Your task to perform on an android device: turn pop-ups on in chrome Image 0: 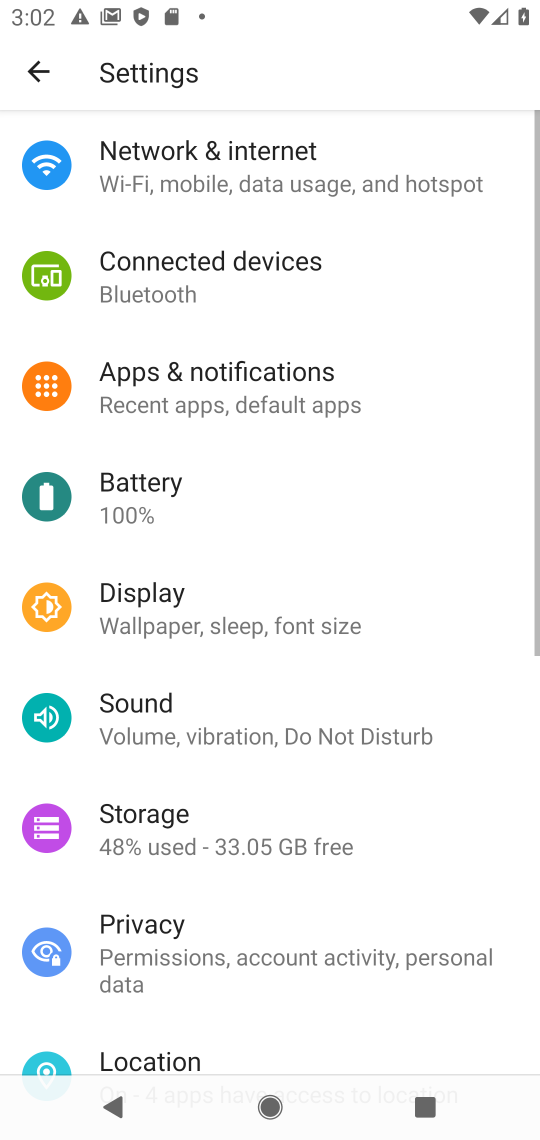
Step 0: press back button
Your task to perform on an android device: turn pop-ups on in chrome Image 1: 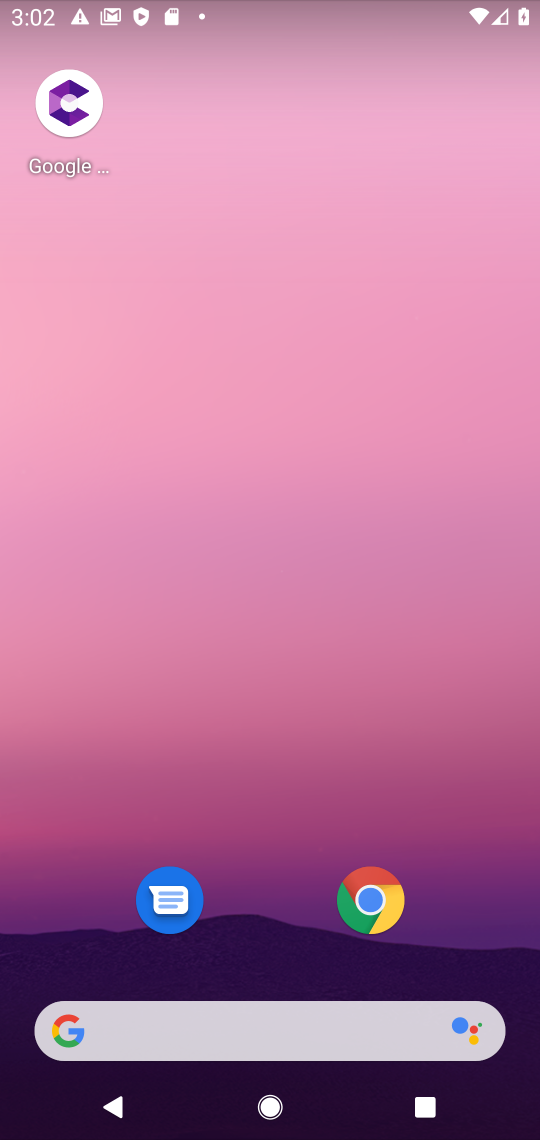
Step 1: click (368, 904)
Your task to perform on an android device: turn pop-ups on in chrome Image 2: 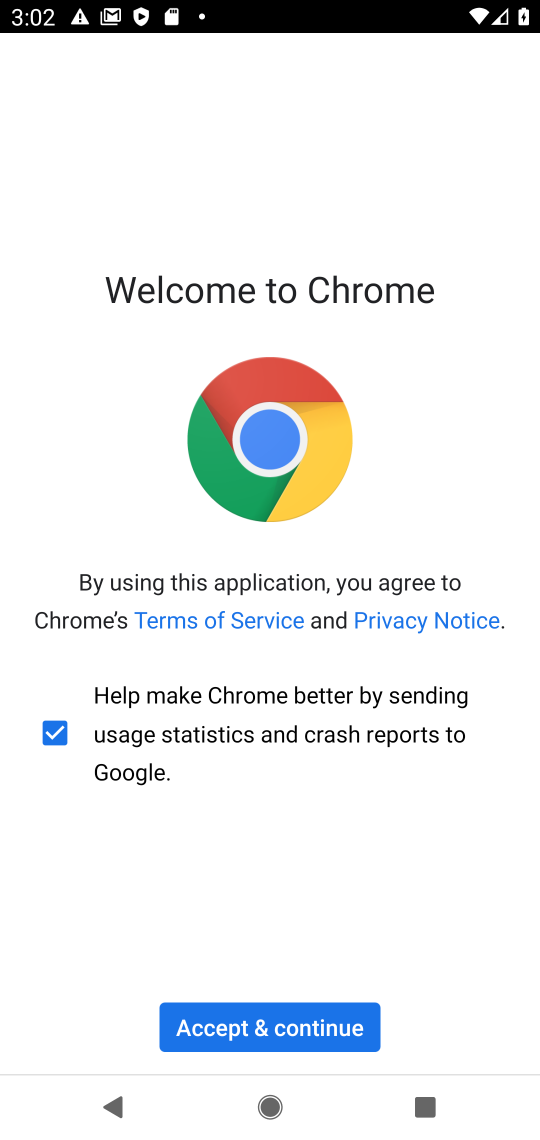
Step 2: click (306, 1010)
Your task to perform on an android device: turn pop-ups on in chrome Image 3: 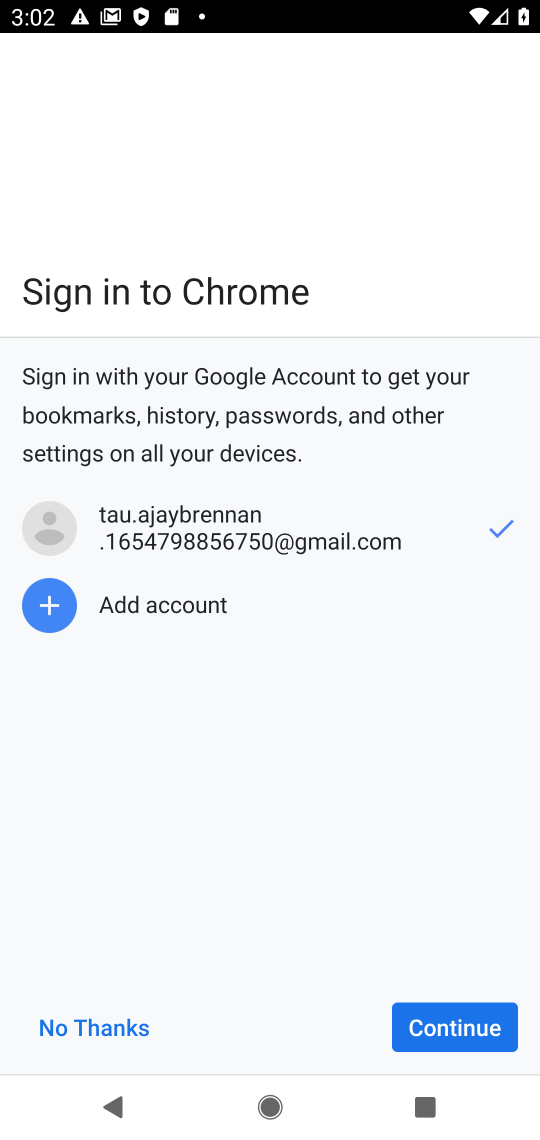
Step 3: click (482, 1032)
Your task to perform on an android device: turn pop-ups on in chrome Image 4: 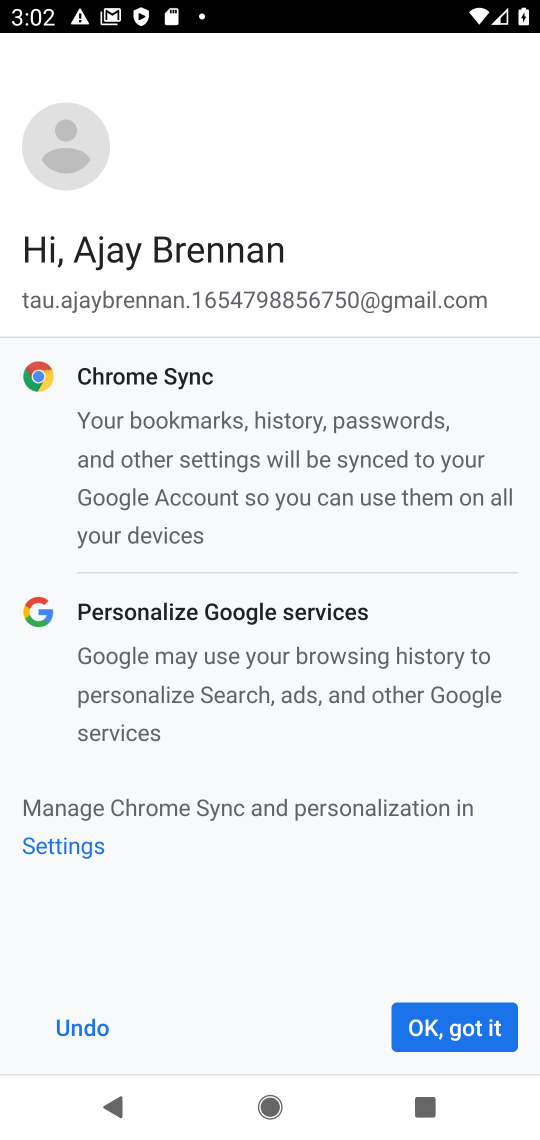
Step 4: click (445, 1031)
Your task to perform on an android device: turn pop-ups on in chrome Image 5: 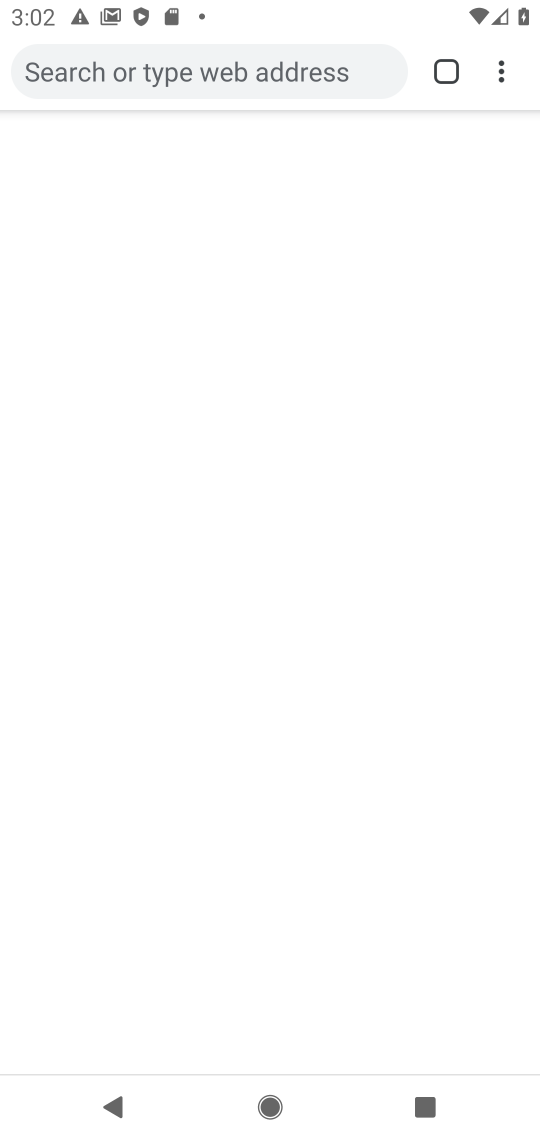
Step 5: drag from (506, 60) to (293, 605)
Your task to perform on an android device: turn pop-ups on in chrome Image 6: 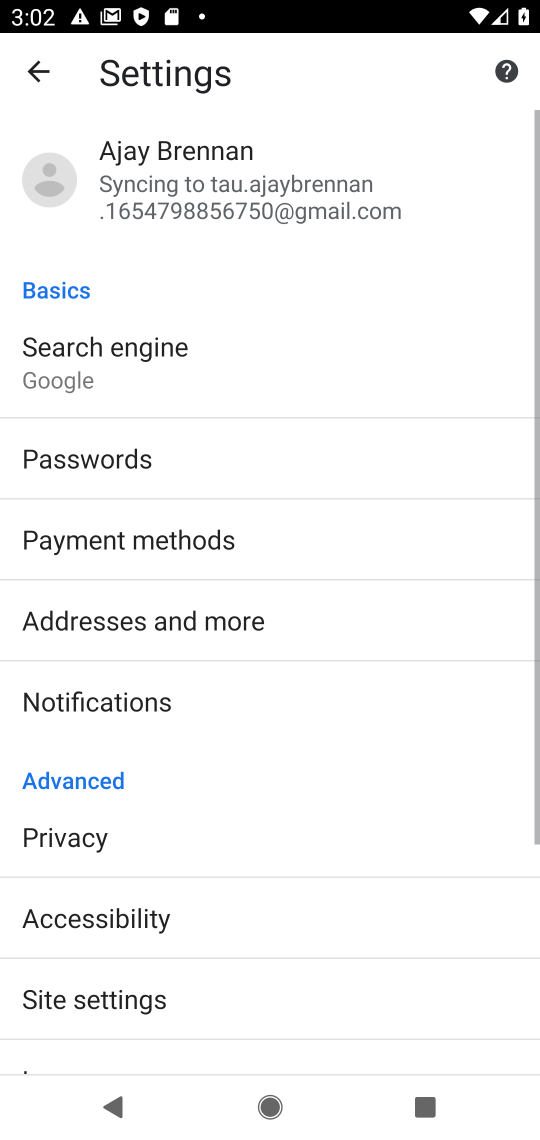
Step 6: drag from (218, 956) to (363, 287)
Your task to perform on an android device: turn pop-ups on in chrome Image 7: 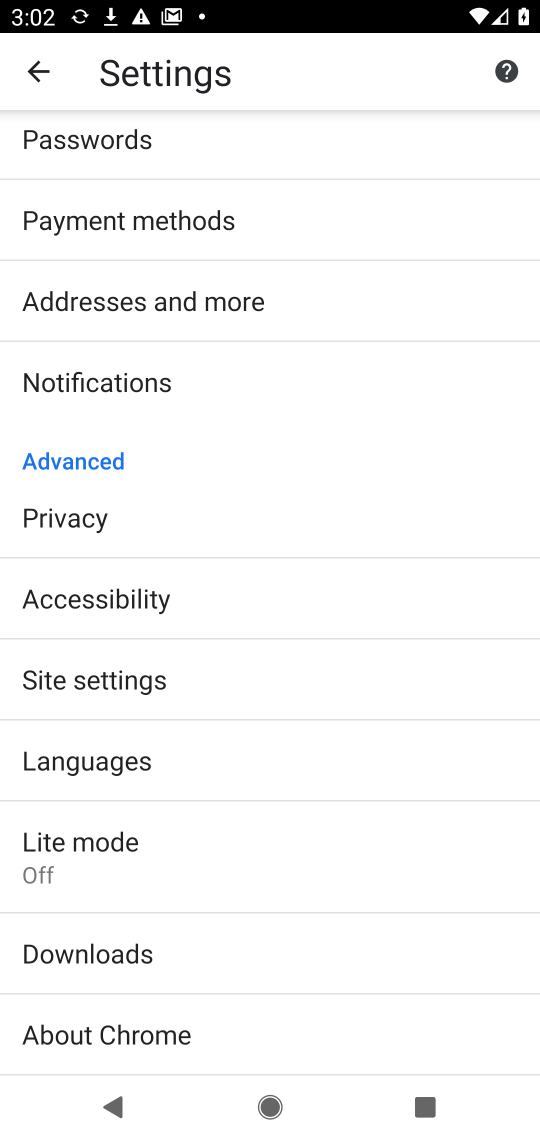
Step 7: click (102, 683)
Your task to perform on an android device: turn pop-ups on in chrome Image 8: 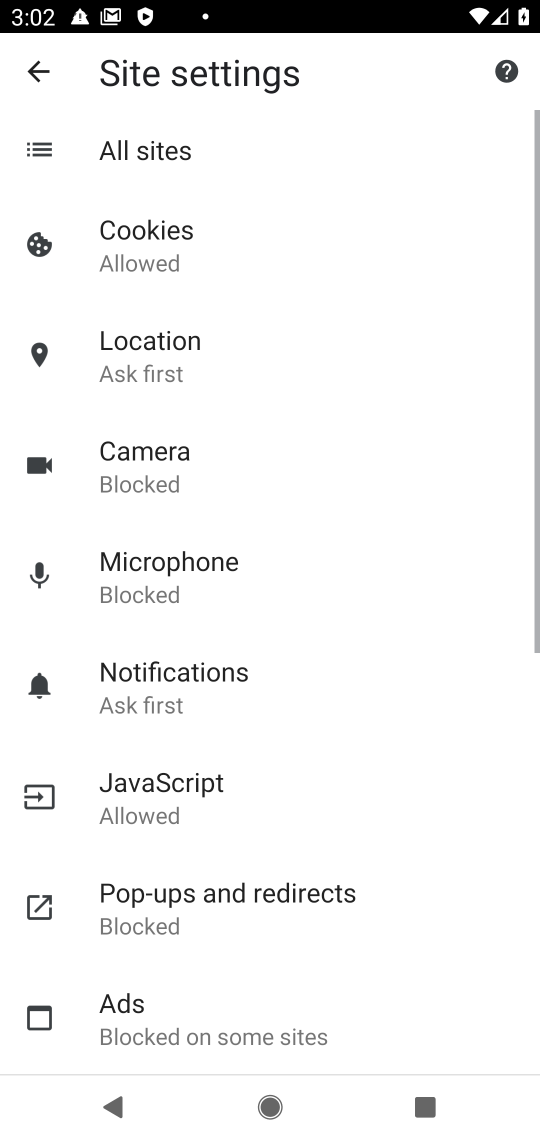
Step 8: click (237, 904)
Your task to perform on an android device: turn pop-ups on in chrome Image 9: 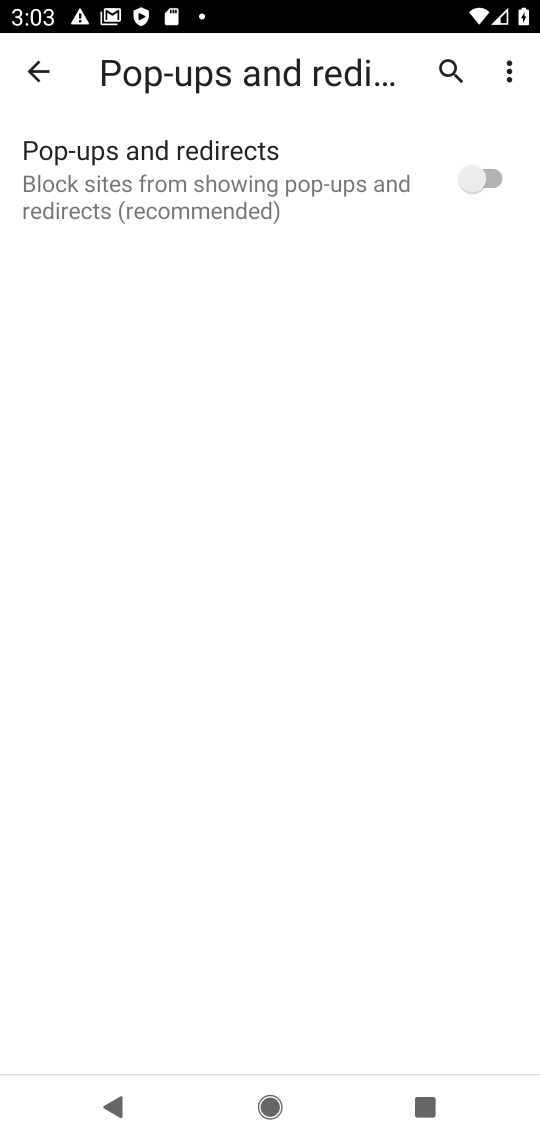
Step 9: click (473, 165)
Your task to perform on an android device: turn pop-ups on in chrome Image 10: 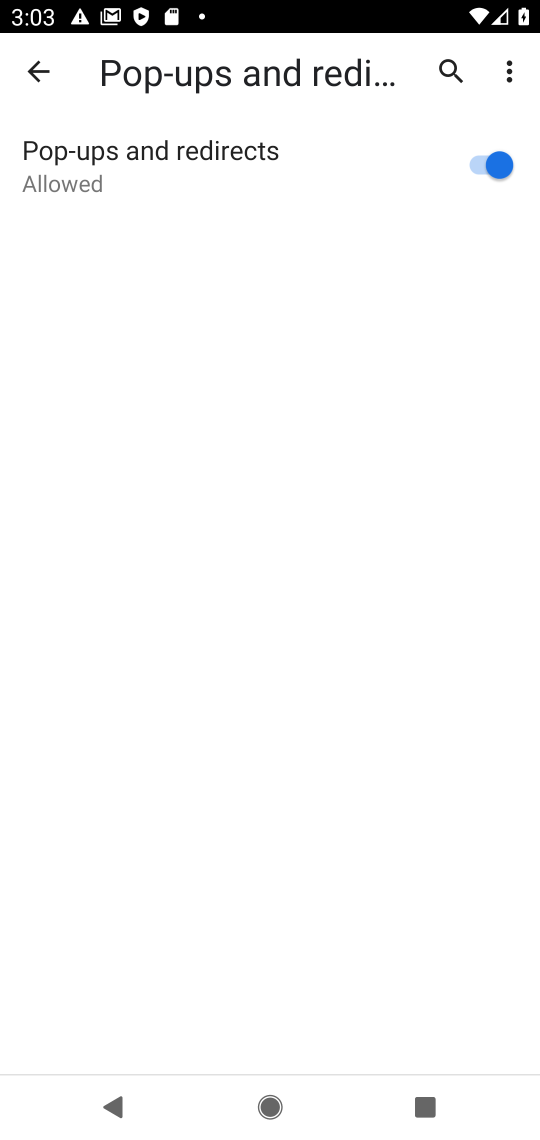
Step 10: task complete